Your task to perform on an android device: Open the phone app and click the voicemail tab. Image 0: 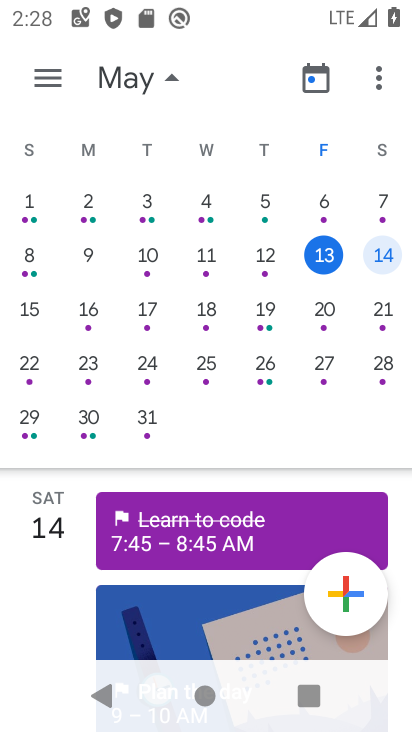
Step 0: press home button
Your task to perform on an android device: Open the phone app and click the voicemail tab. Image 1: 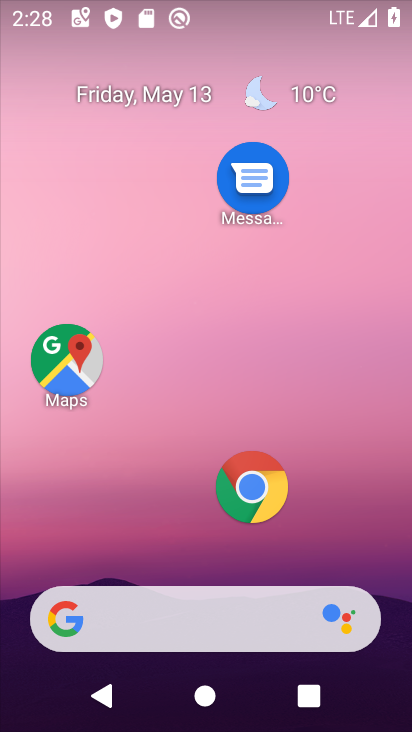
Step 1: drag from (169, 573) to (232, 125)
Your task to perform on an android device: Open the phone app and click the voicemail tab. Image 2: 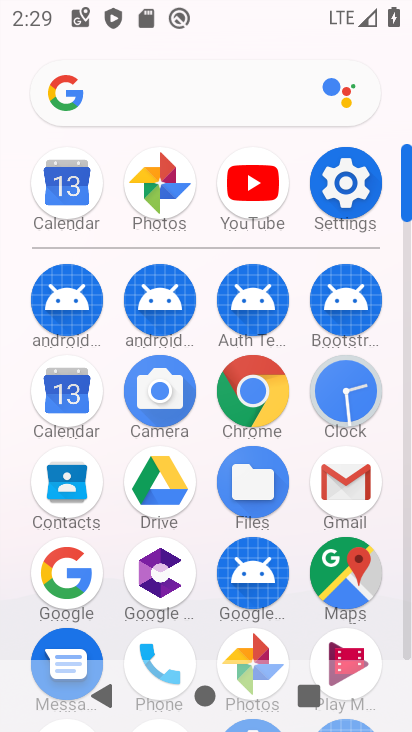
Step 2: click (158, 653)
Your task to perform on an android device: Open the phone app and click the voicemail tab. Image 3: 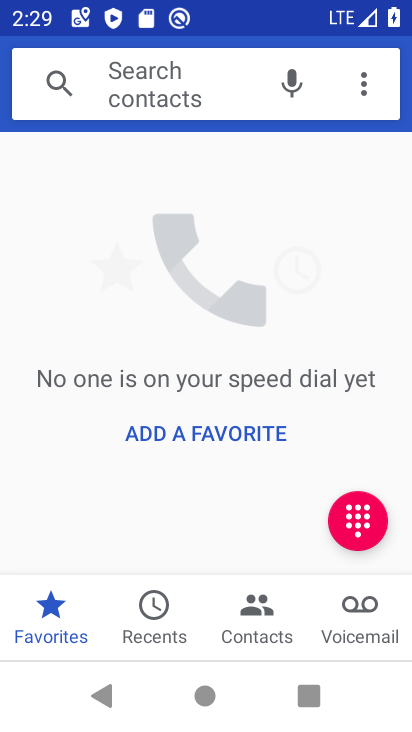
Step 3: click (355, 623)
Your task to perform on an android device: Open the phone app and click the voicemail tab. Image 4: 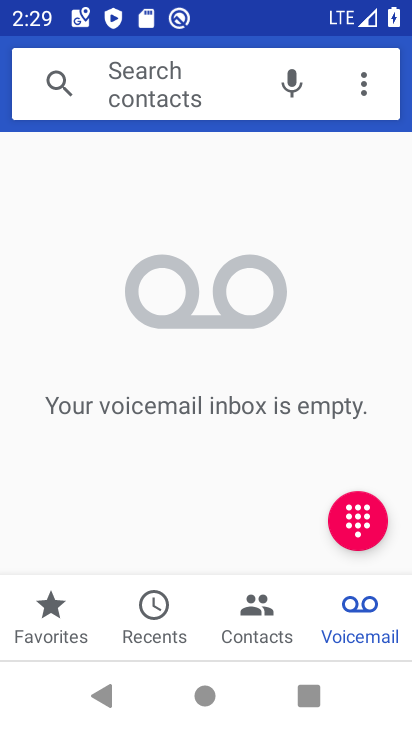
Step 4: task complete